Your task to perform on an android device: Open ESPN.com Image 0: 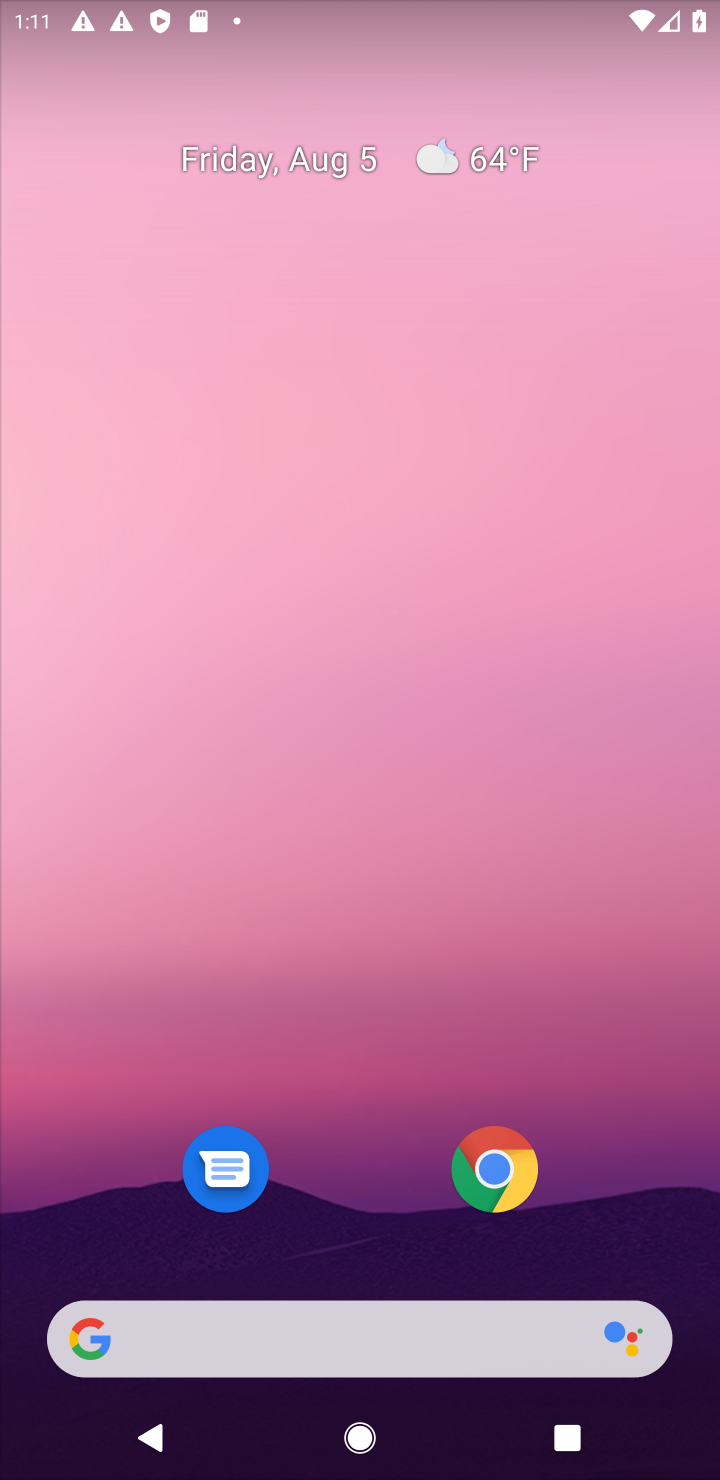
Step 0: click (490, 1147)
Your task to perform on an android device: Open ESPN.com Image 1: 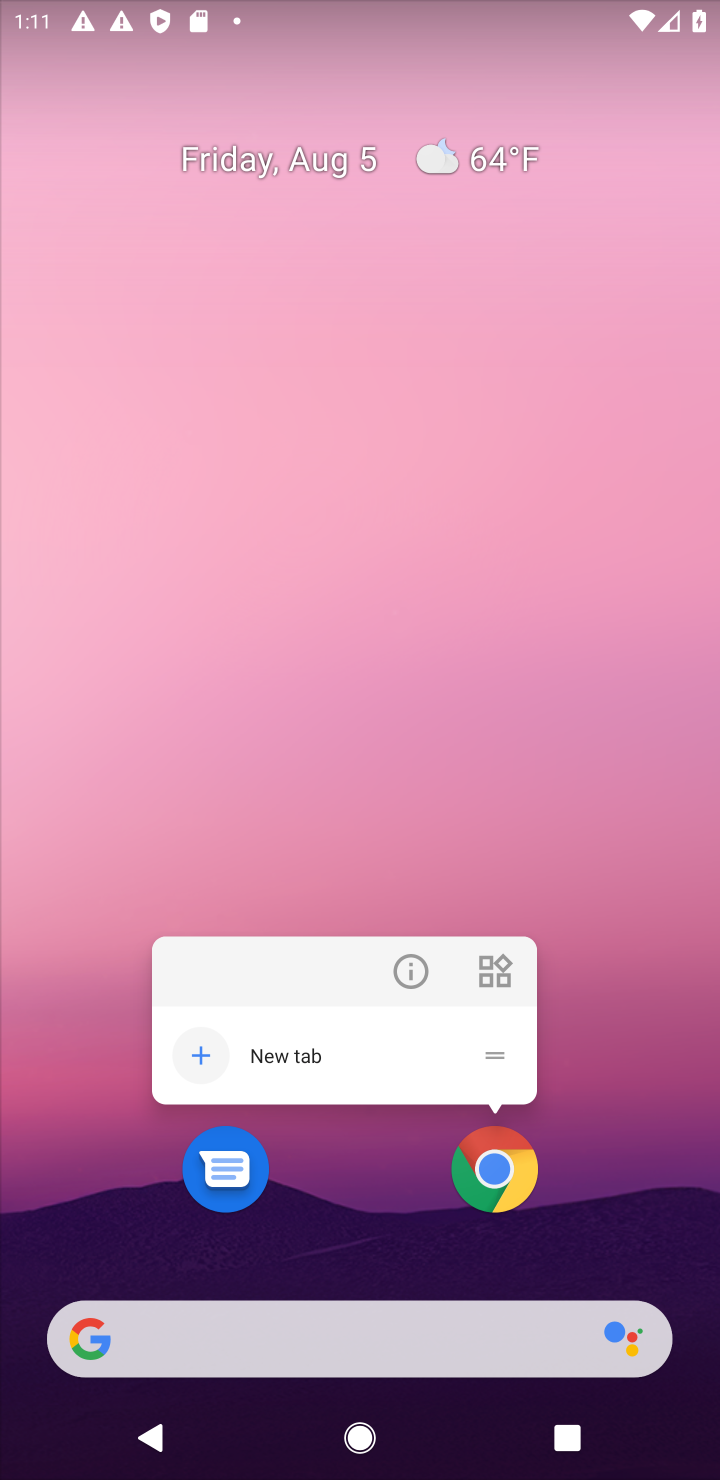
Step 1: click (490, 1147)
Your task to perform on an android device: Open ESPN.com Image 2: 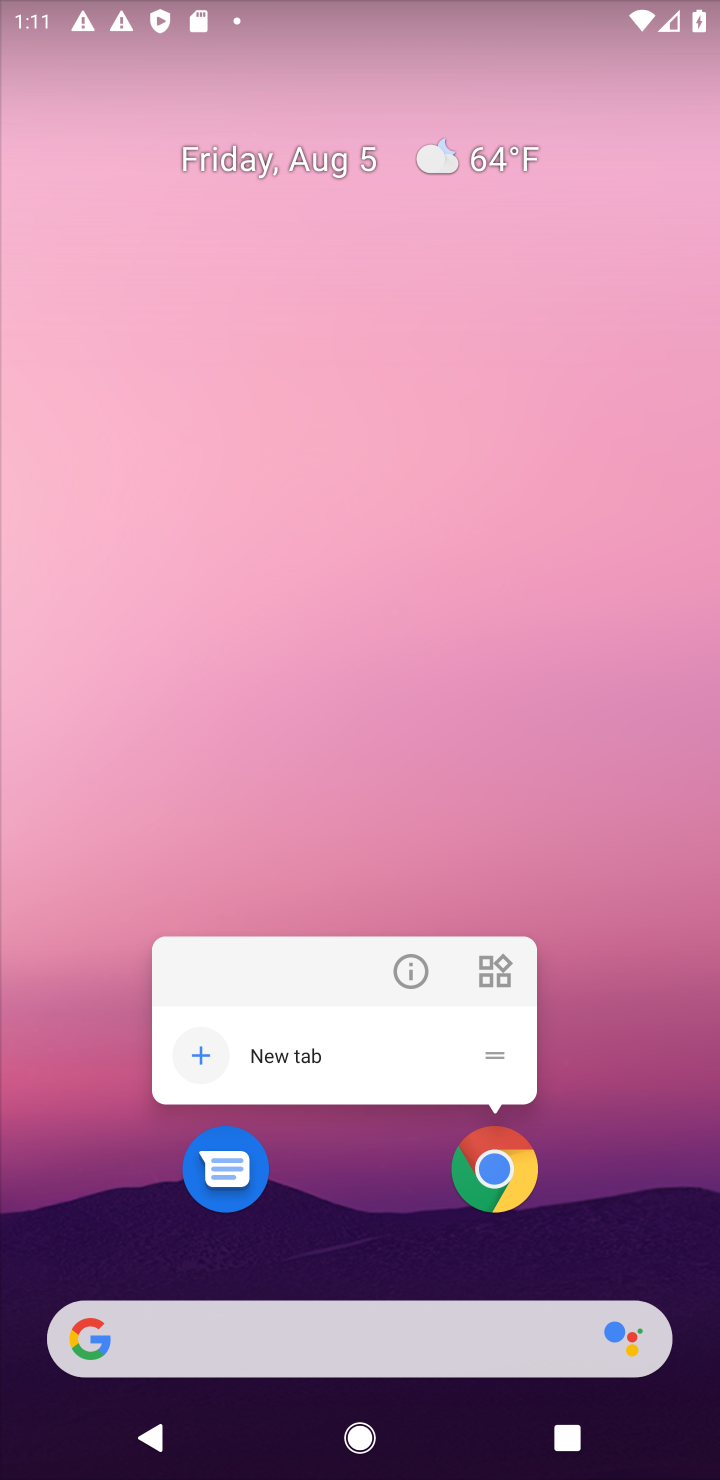
Step 2: click (490, 1147)
Your task to perform on an android device: Open ESPN.com Image 3: 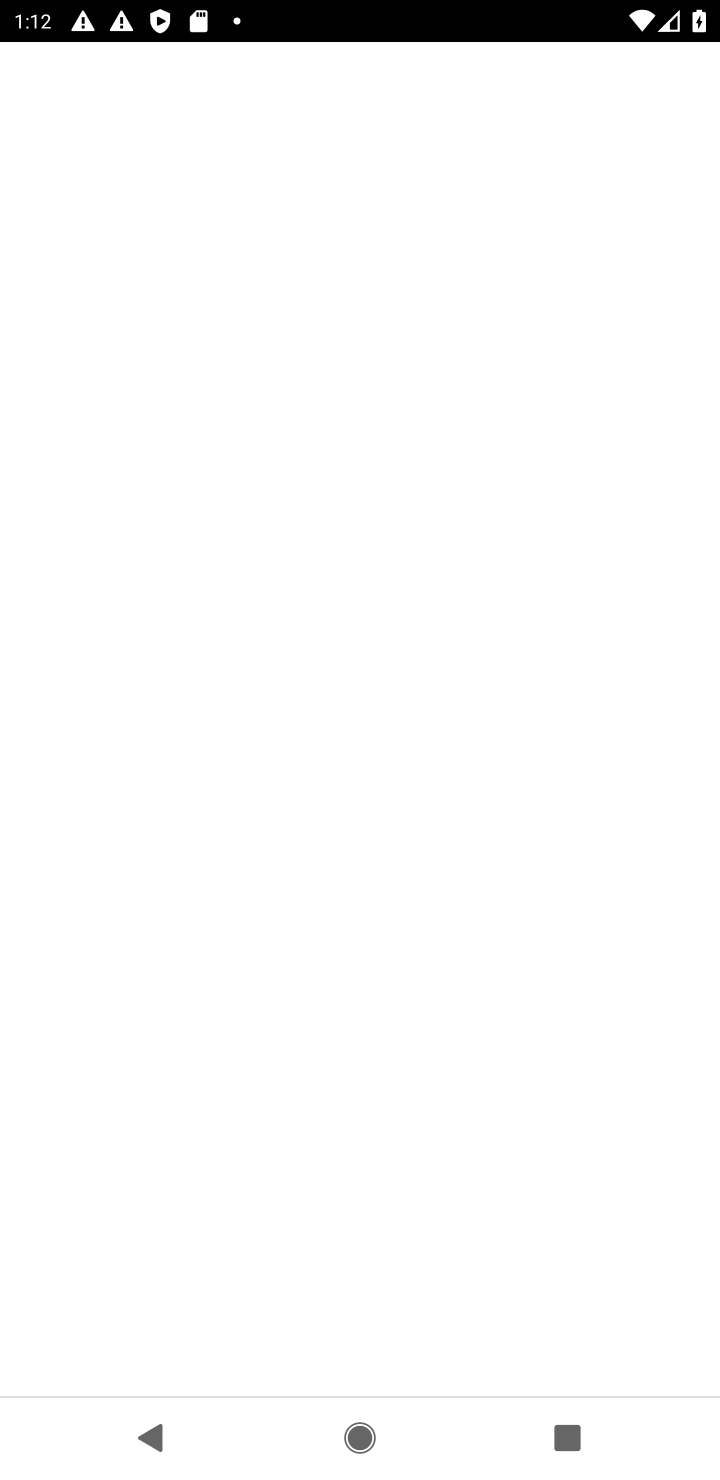
Step 3: task complete